Your task to perform on an android device: turn off sleep mode Image 0: 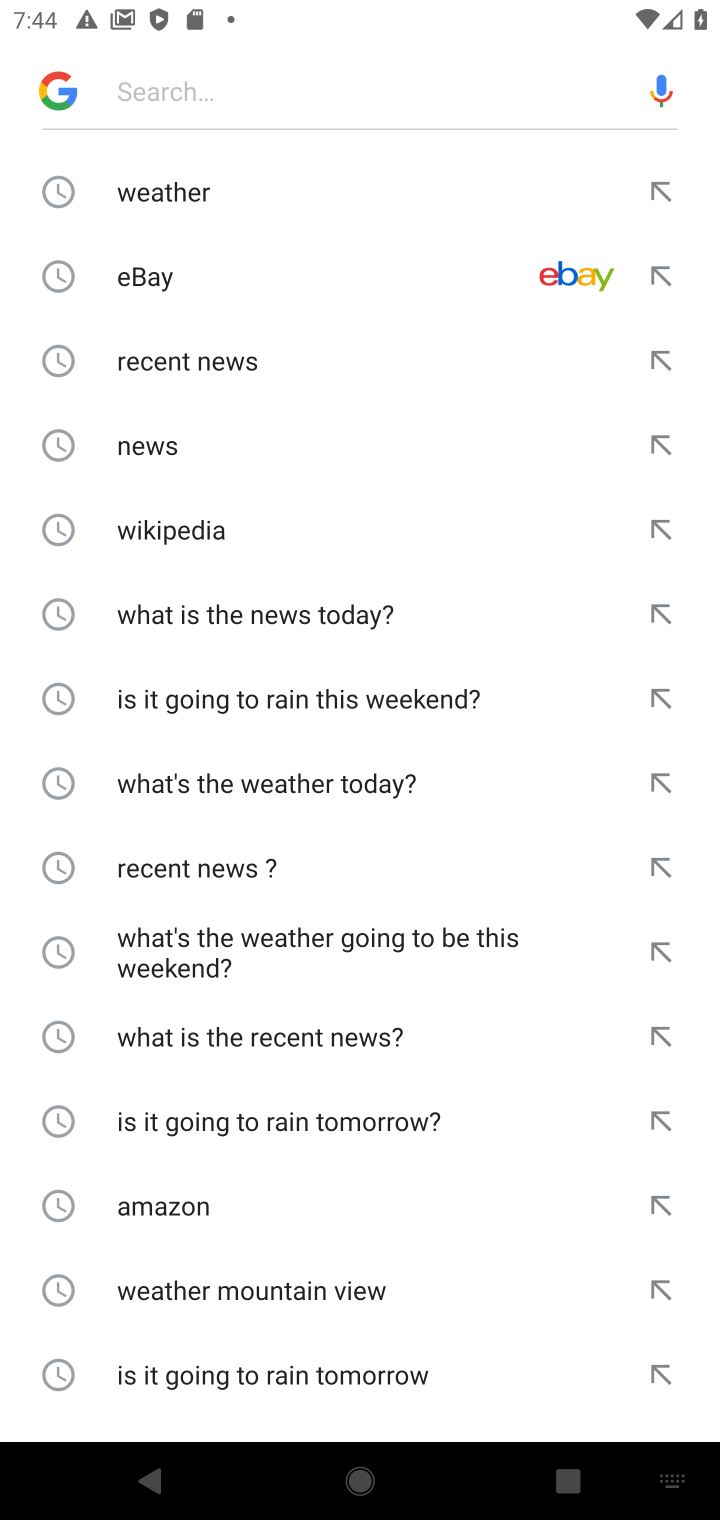
Step 0: press home button
Your task to perform on an android device: turn off sleep mode Image 1: 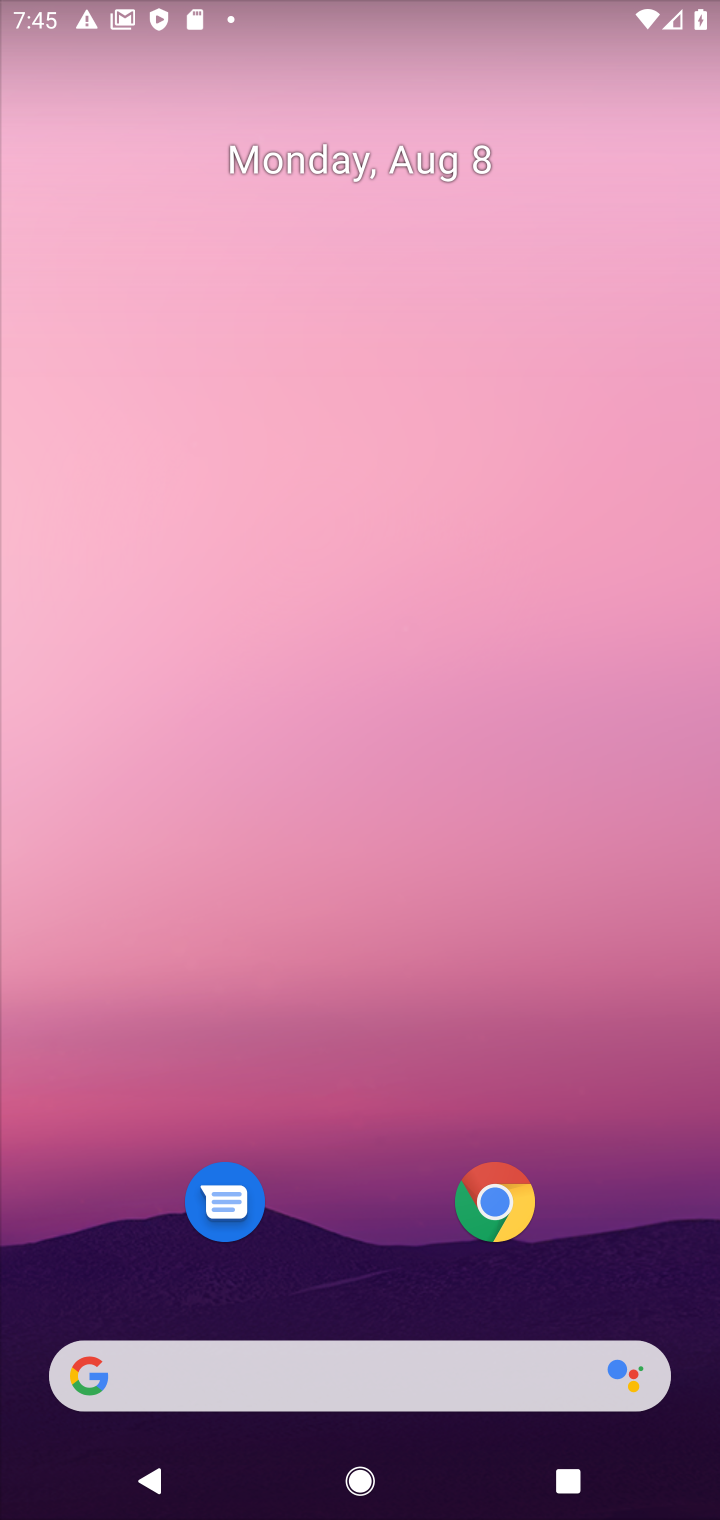
Step 1: drag from (330, 1405) to (390, 459)
Your task to perform on an android device: turn off sleep mode Image 2: 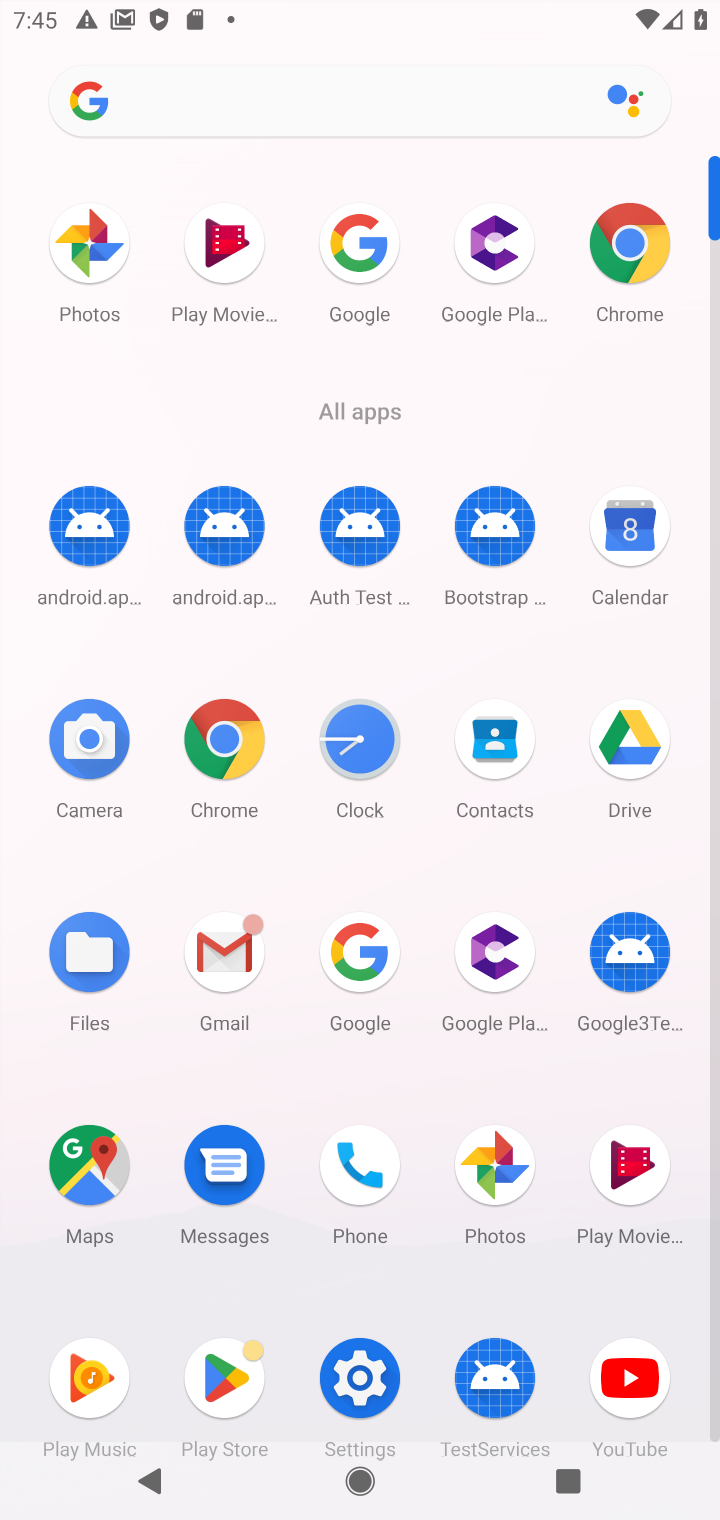
Step 2: click (383, 1375)
Your task to perform on an android device: turn off sleep mode Image 3: 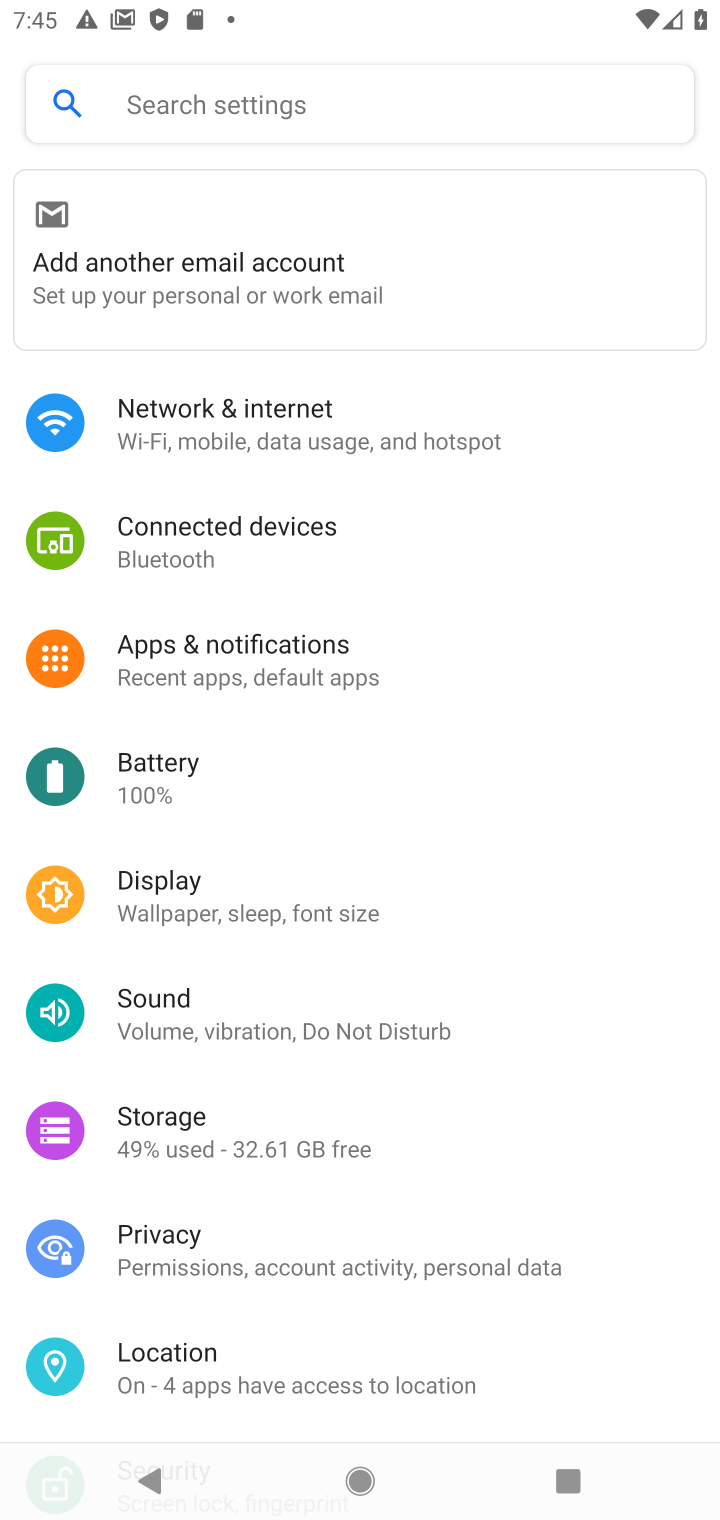
Step 3: click (292, 895)
Your task to perform on an android device: turn off sleep mode Image 4: 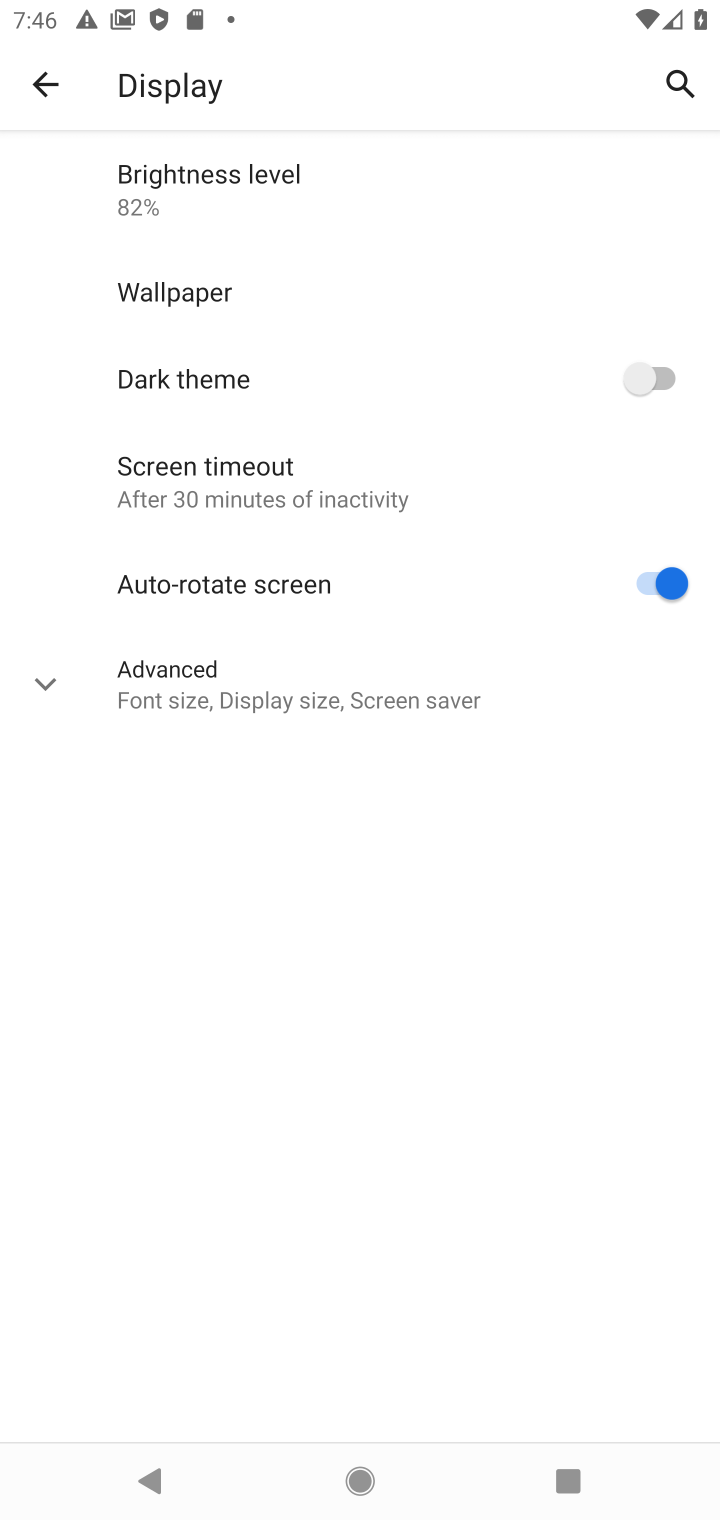
Step 4: click (209, 675)
Your task to perform on an android device: turn off sleep mode Image 5: 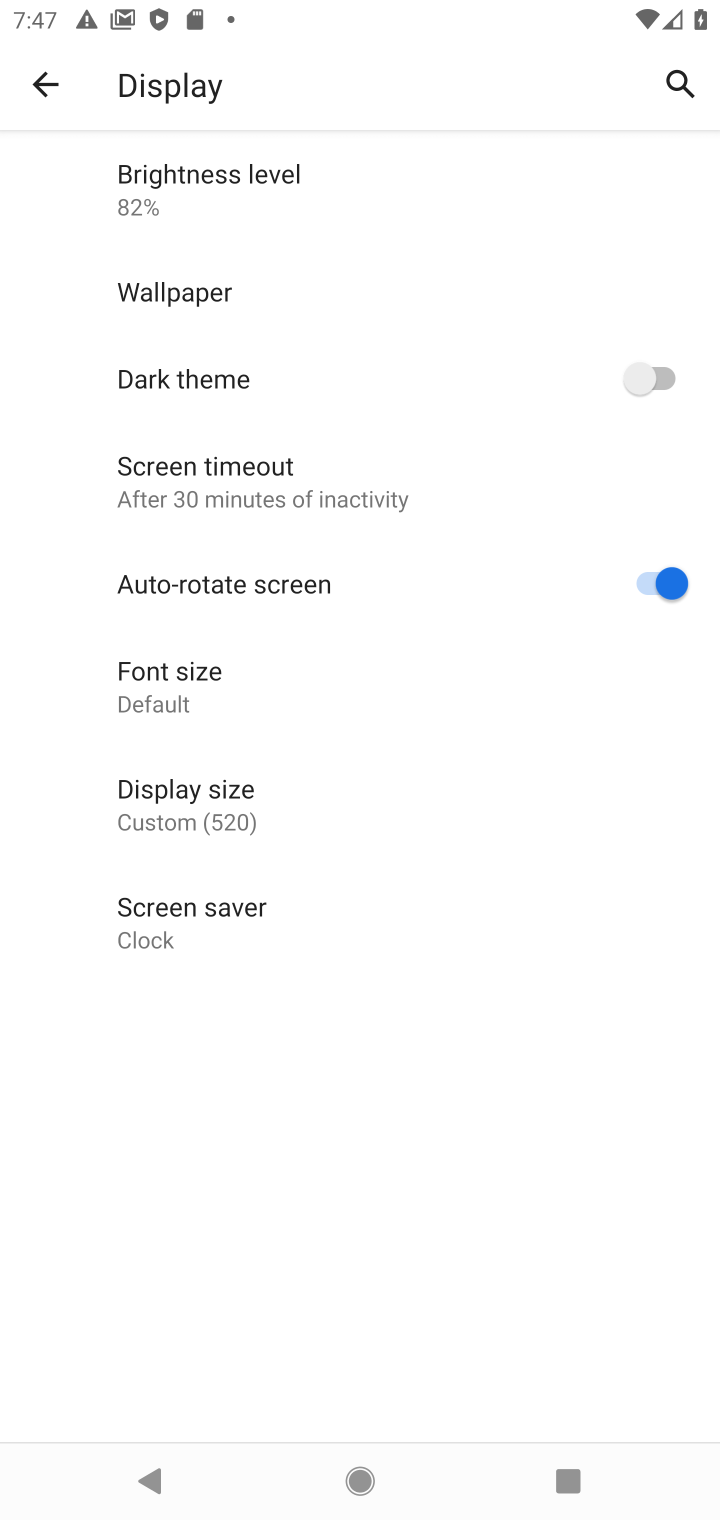
Step 5: task complete